Your task to perform on an android device: check battery use Image 0: 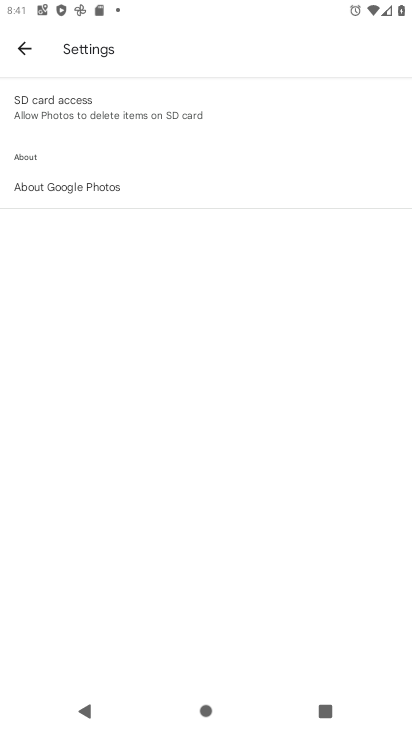
Step 0: press home button
Your task to perform on an android device: check battery use Image 1: 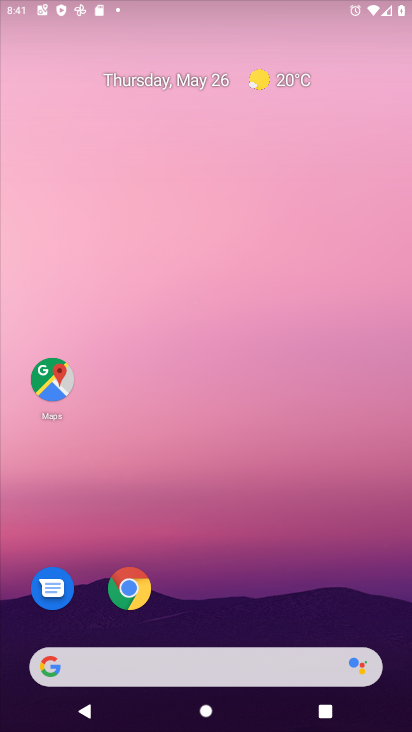
Step 1: drag from (356, 612) to (322, 15)
Your task to perform on an android device: check battery use Image 2: 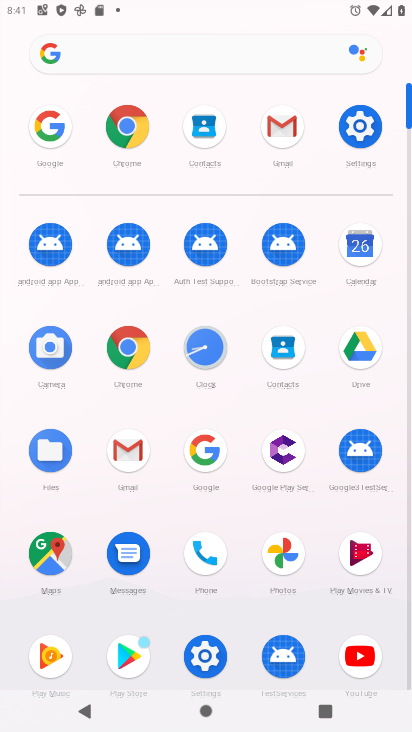
Step 2: click (354, 135)
Your task to perform on an android device: check battery use Image 3: 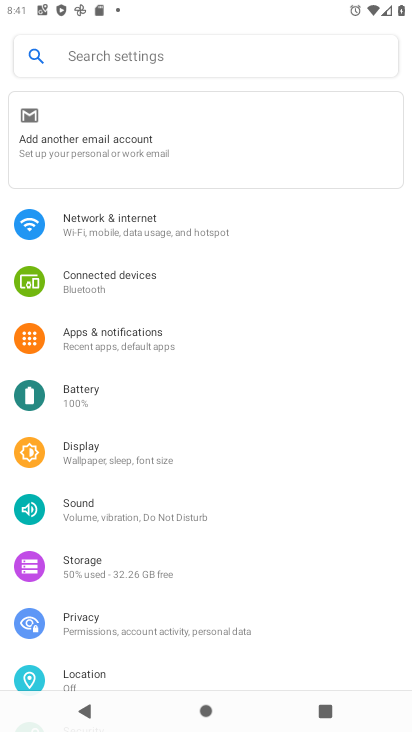
Step 3: click (75, 398)
Your task to perform on an android device: check battery use Image 4: 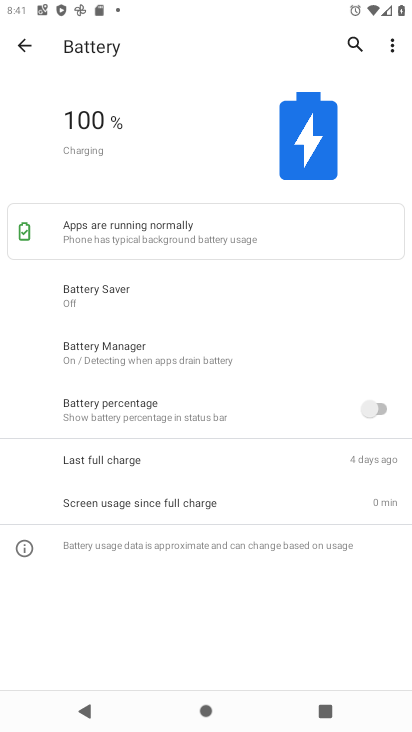
Step 4: click (395, 50)
Your task to perform on an android device: check battery use Image 5: 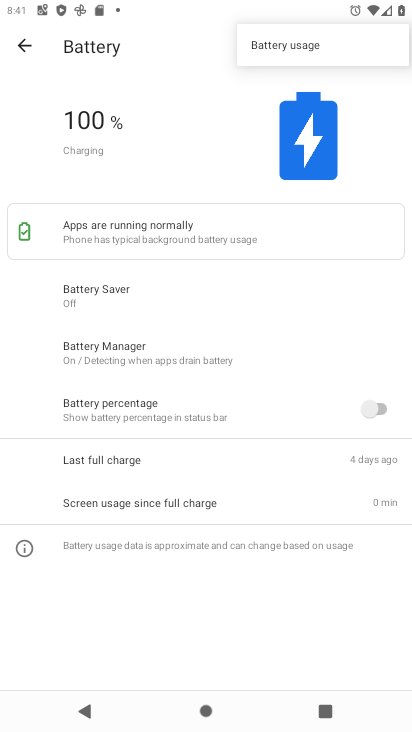
Step 5: click (327, 48)
Your task to perform on an android device: check battery use Image 6: 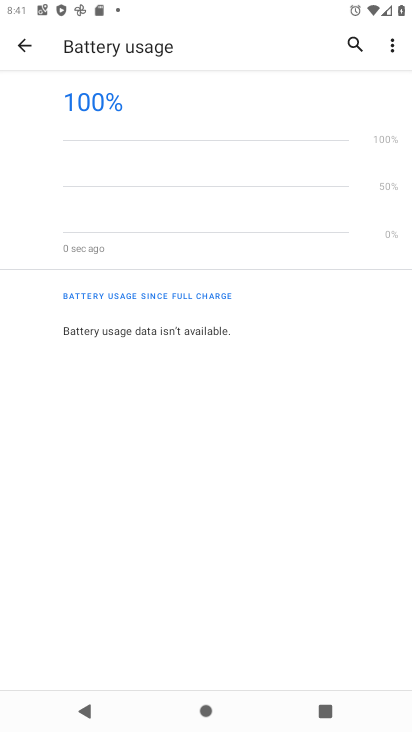
Step 6: task complete